Your task to perform on an android device: change notifications settings Image 0: 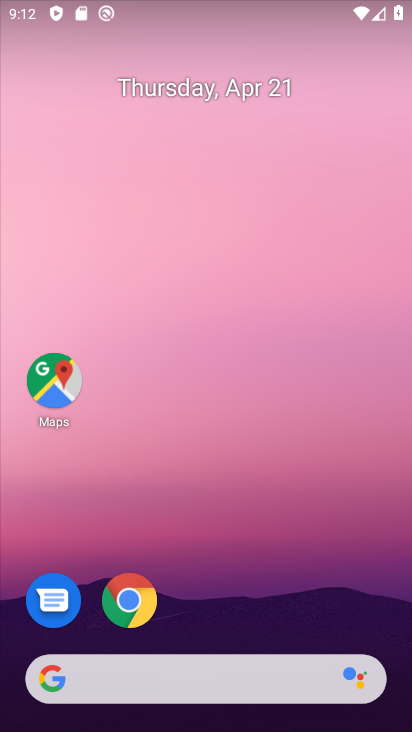
Step 0: drag from (241, 589) to (234, 117)
Your task to perform on an android device: change notifications settings Image 1: 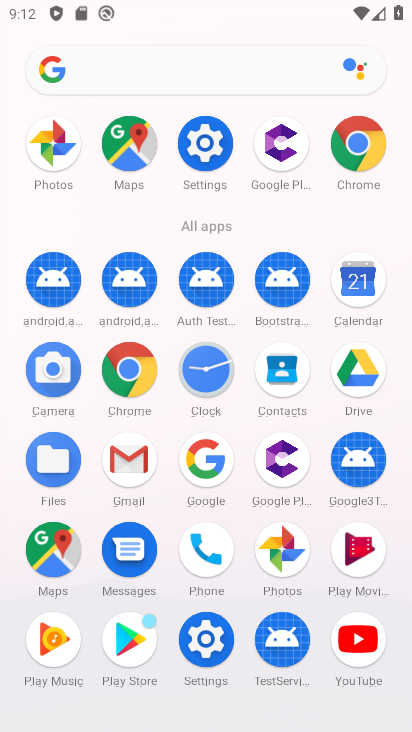
Step 1: click (209, 643)
Your task to perform on an android device: change notifications settings Image 2: 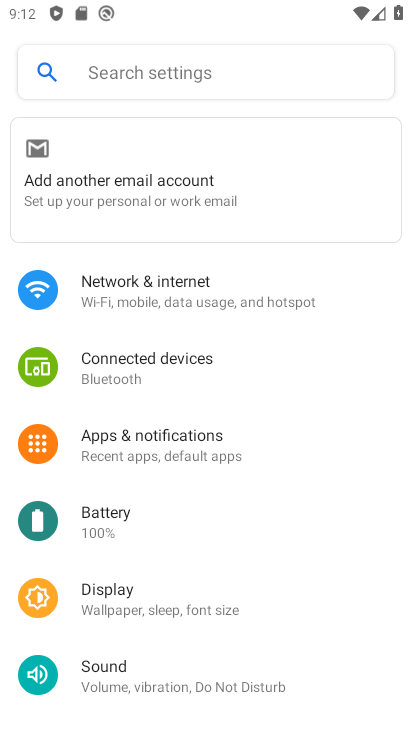
Step 2: click (168, 445)
Your task to perform on an android device: change notifications settings Image 3: 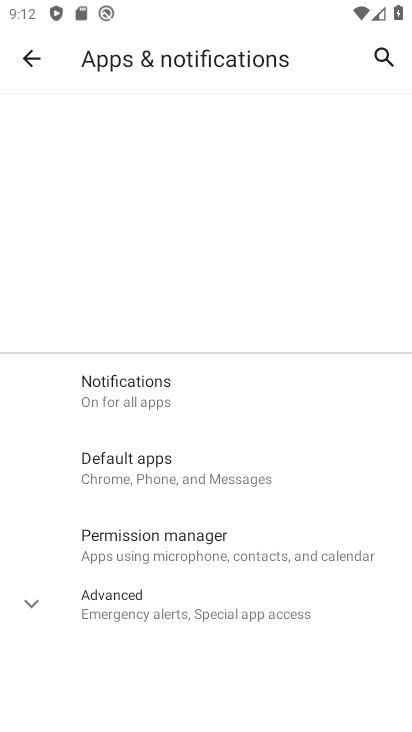
Step 3: click (124, 402)
Your task to perform on an android device: change notifications settings Image 4: 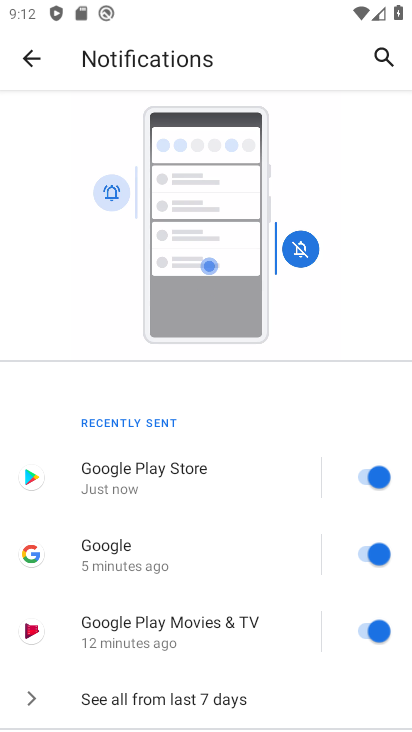
Step 4: drag from (255, 635) to (274, 66)
Your task to perform on an android device: change notifications settings Image 5: 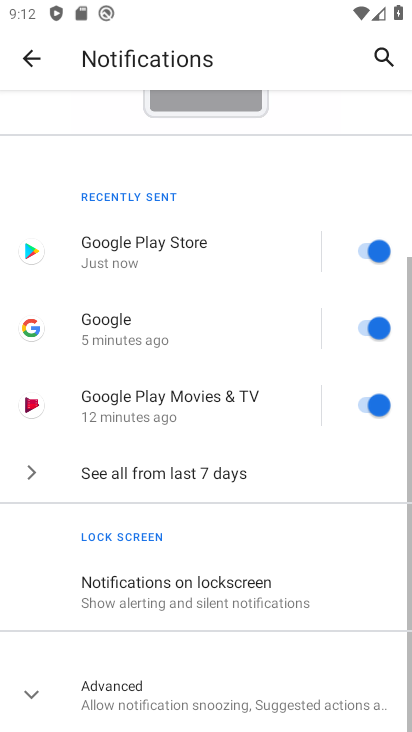
Step 5: click (140, 692)
Your task to perform on an android device: change notifications settings Image 6: 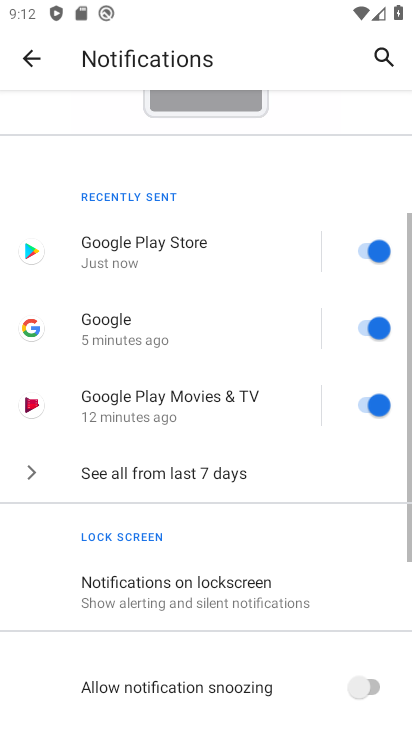
Step 6: drag from (301, 550) to (310, 117)
Your task to perform on an android device: change notifications settings Image 7: 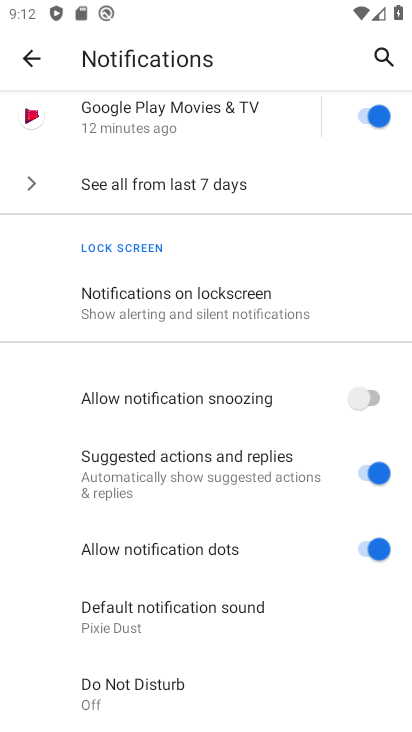
Step 7: click (356, 405)
Your task to perform on an android device: change notifications settings Image 8: 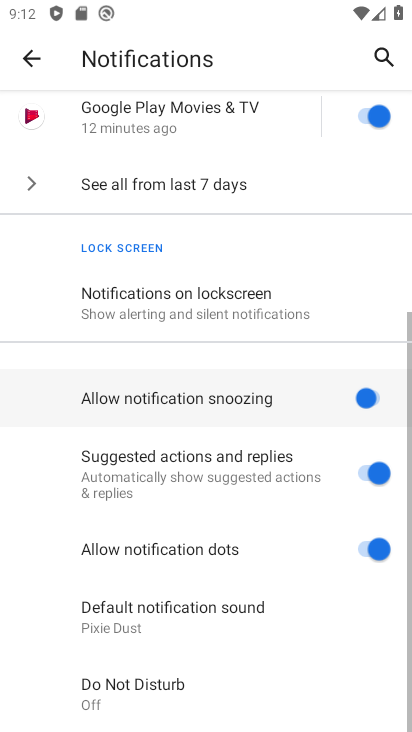
Step 8: click (376, 465)
Your task to perform on an android device: change notifications settings Image 9: 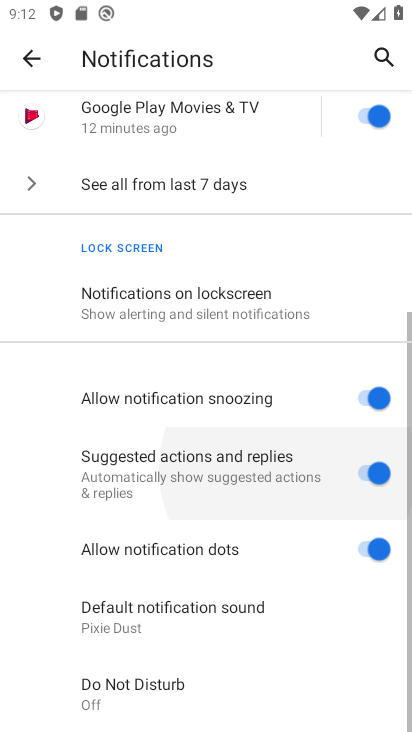
Step 9: click (378, 554)
Your task to perform on an android device: change notifications settings Image 10: 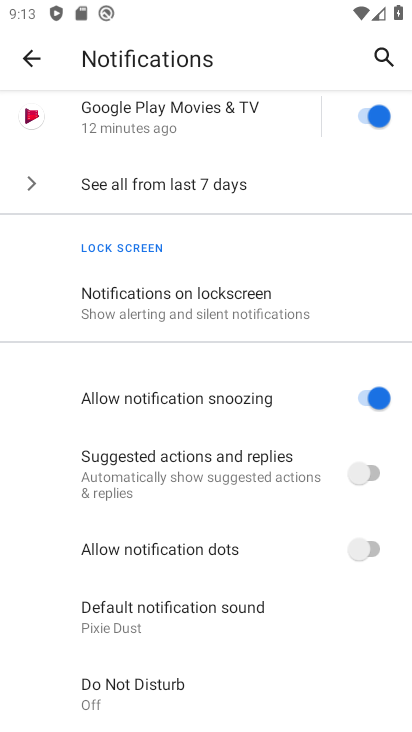
Step 10: task complete